Your task to perform on an android device: Show me recent news Image 0: 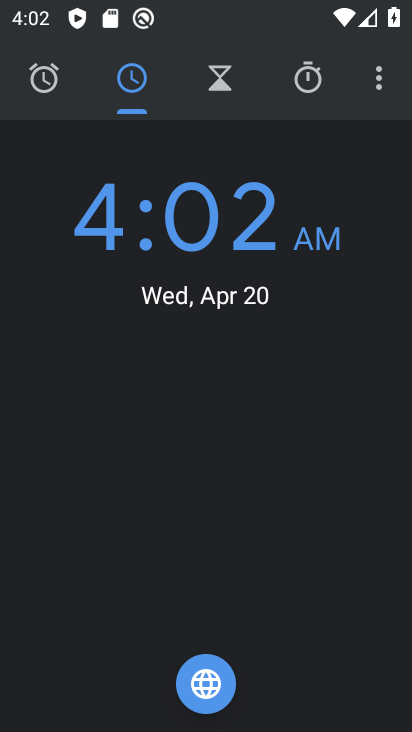
Step 0: press back button
Your task to perform on an android device: Show me recent news Image 1: 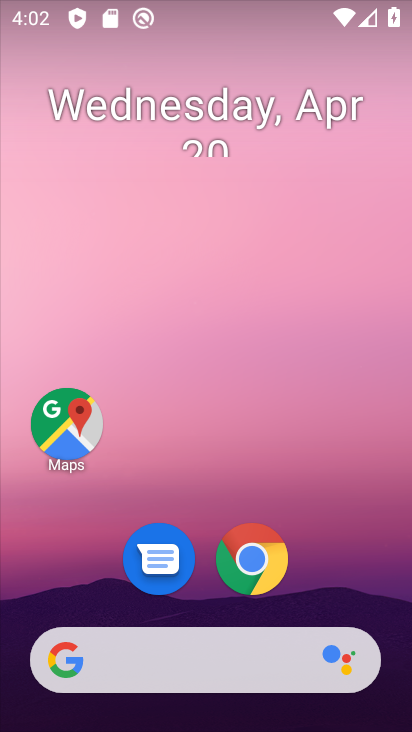
Step 1: click (268, 567)
Your task to perform on an android device: Show me recent news Image 2: 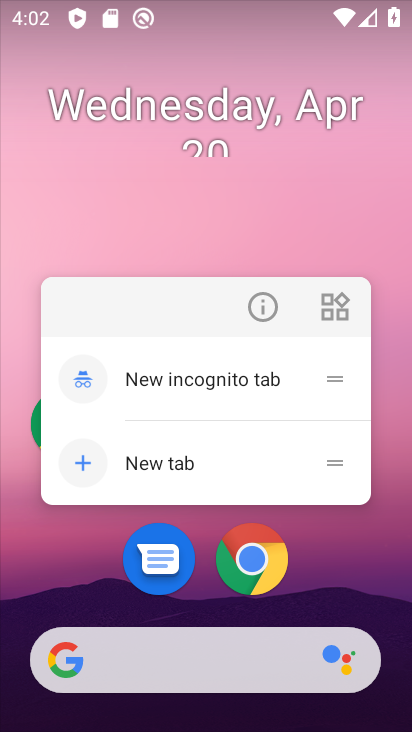
Step 2: click (268, 567)
Your task to perform on an android device: Show me recent news Image 3: 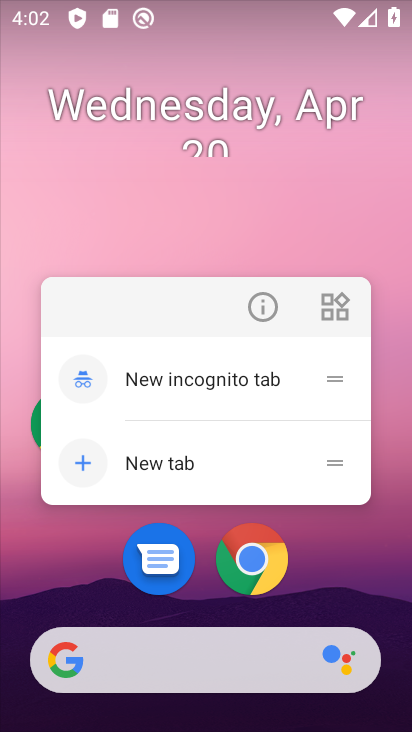
Step 3: click (156, 447)
Your task to perform on an android device: Show me recent news Image 4: 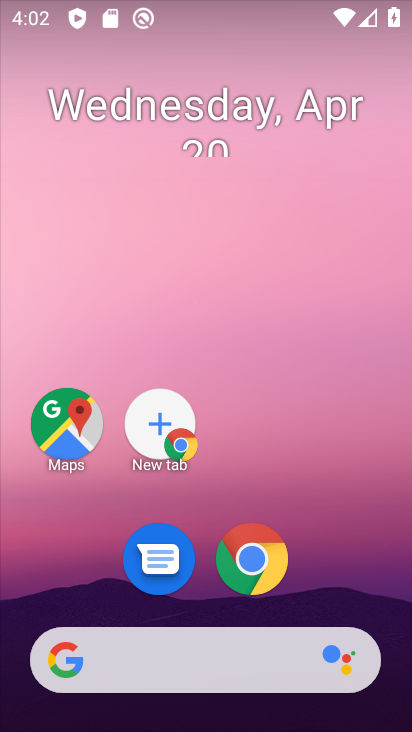
Step 4: click (264, 554)
Your task to perform on an android device: Show me recent news Image 5: 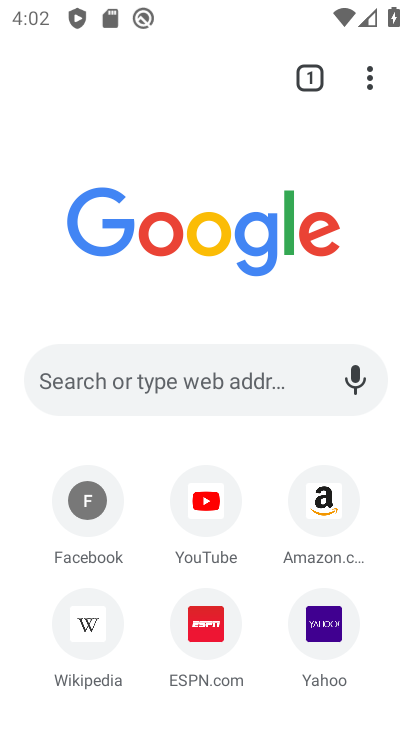
Step 5: task complete